Your task to perform on an android device: Go to Android settings Image 0: 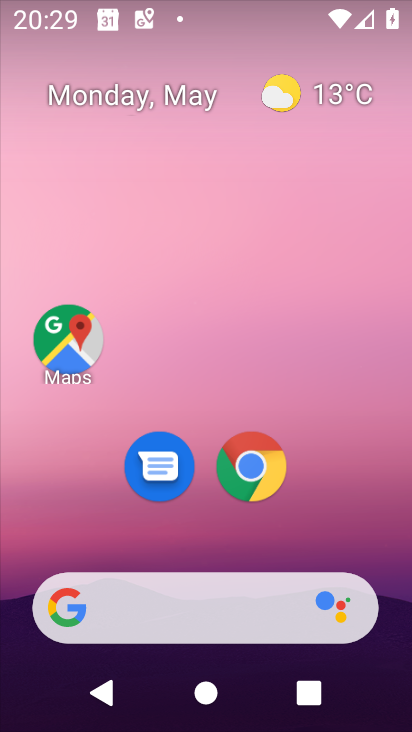
Step 0: drag from (323, 506) to (323, 419)
Your task to perform on an android device: Go to Android settings Image 1: 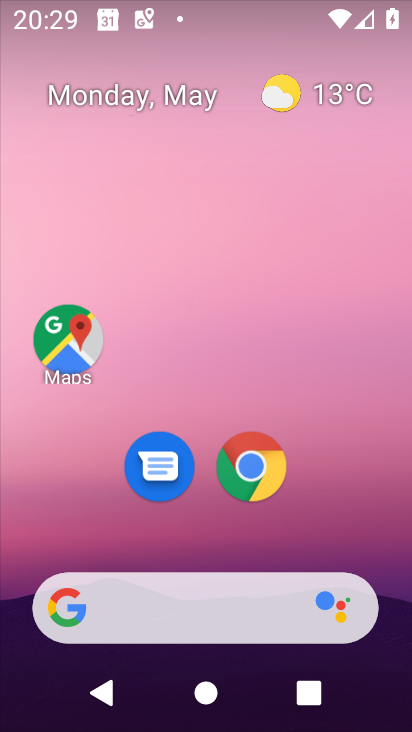
Step 1: drag from (293, 407) to (331, 185)
Your task to perform on an android device: Go to Android settings Image 2: 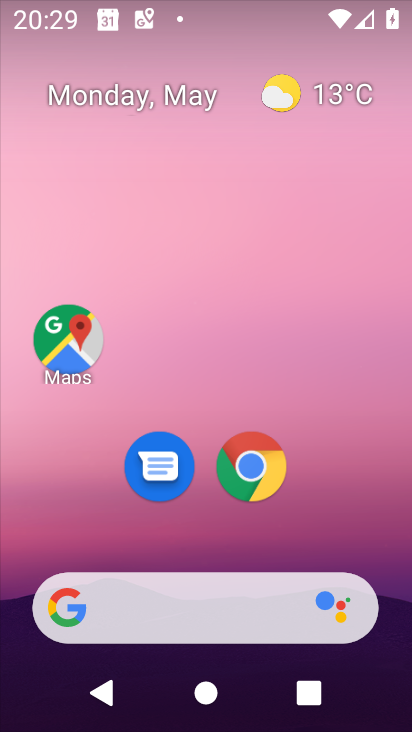
Step 2: drag from (283, 563) to (366, 239)
Your task to perform on an android device: Go to Android settings Image 3: 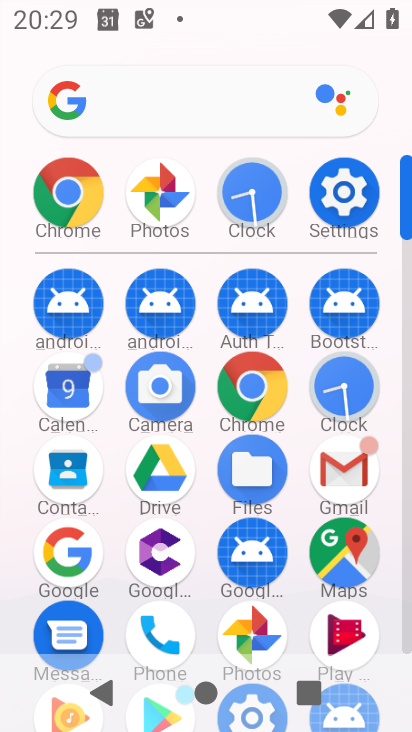
Step 3: click (339, 199)
Your task to perform on an android device: Go to Android settings Image 4: 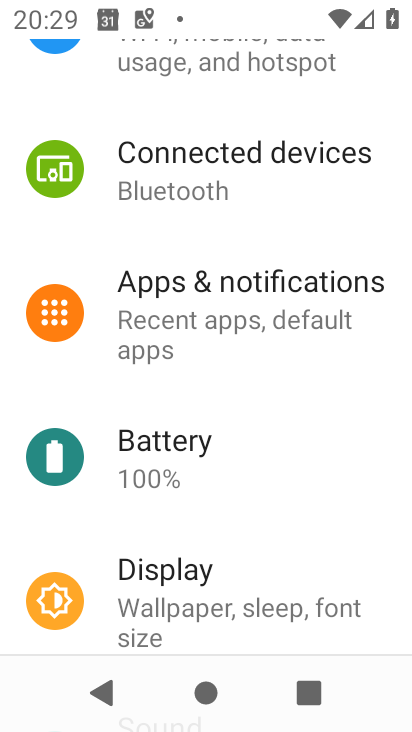
Step 4: task complete